Your task to perform on an android device: Open wifi settings Image 0: 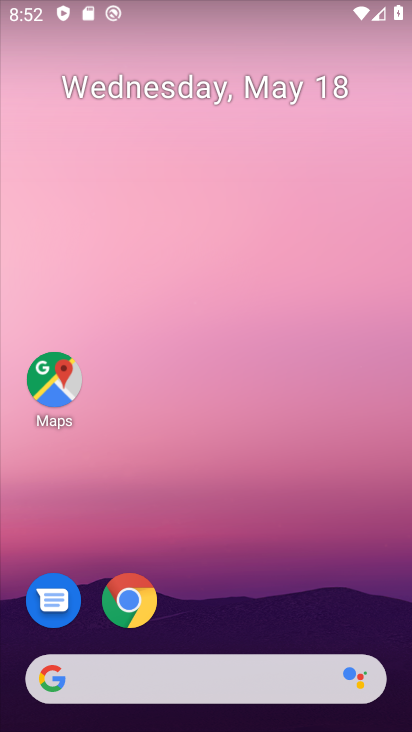
Step 0: drag from (167, 29) to (218, 521)
Your task to perform on an android device: Open wifi settings Image 1: 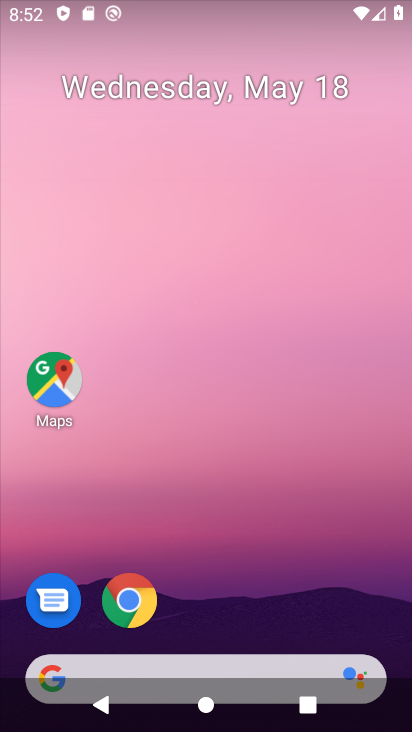
Step 1: drag from (195, 6) to (201, 483)
Your task to perform on an android device: Open wifi settings Image 2: 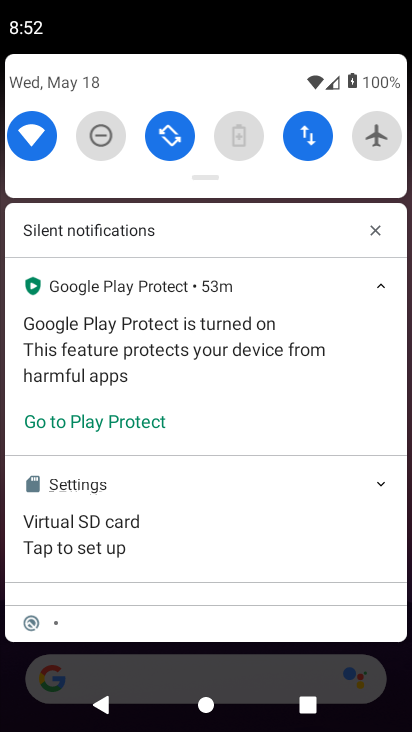
Step 2: click (24, 135)
Your task to perform on an android device: Open wifi settings Image 3: 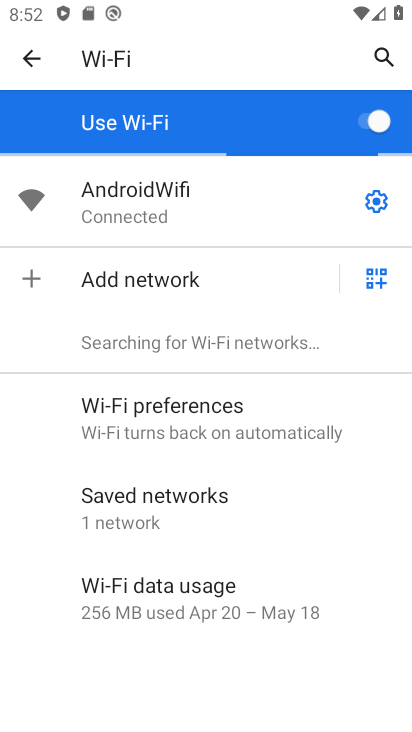
Step 3: click (365, 203)
Your task to perform on an android device: Open wifi settings Image 4: 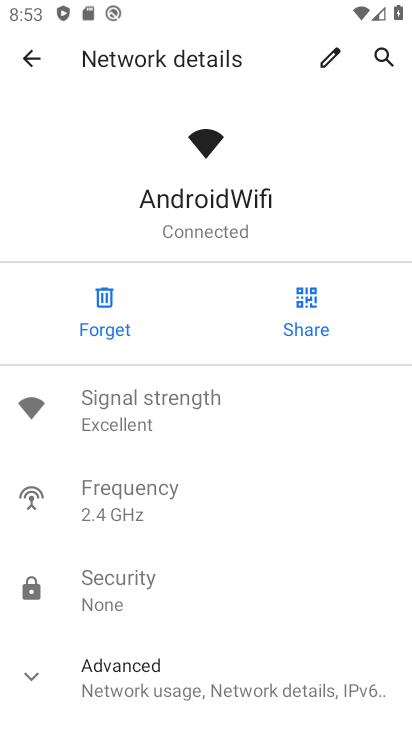
Step 4: task complete